Your task to perform on an android device: Clear all items from cart on newegg. Add "lg ultragear" to the cart on newegg, then select checkout. Image 0: 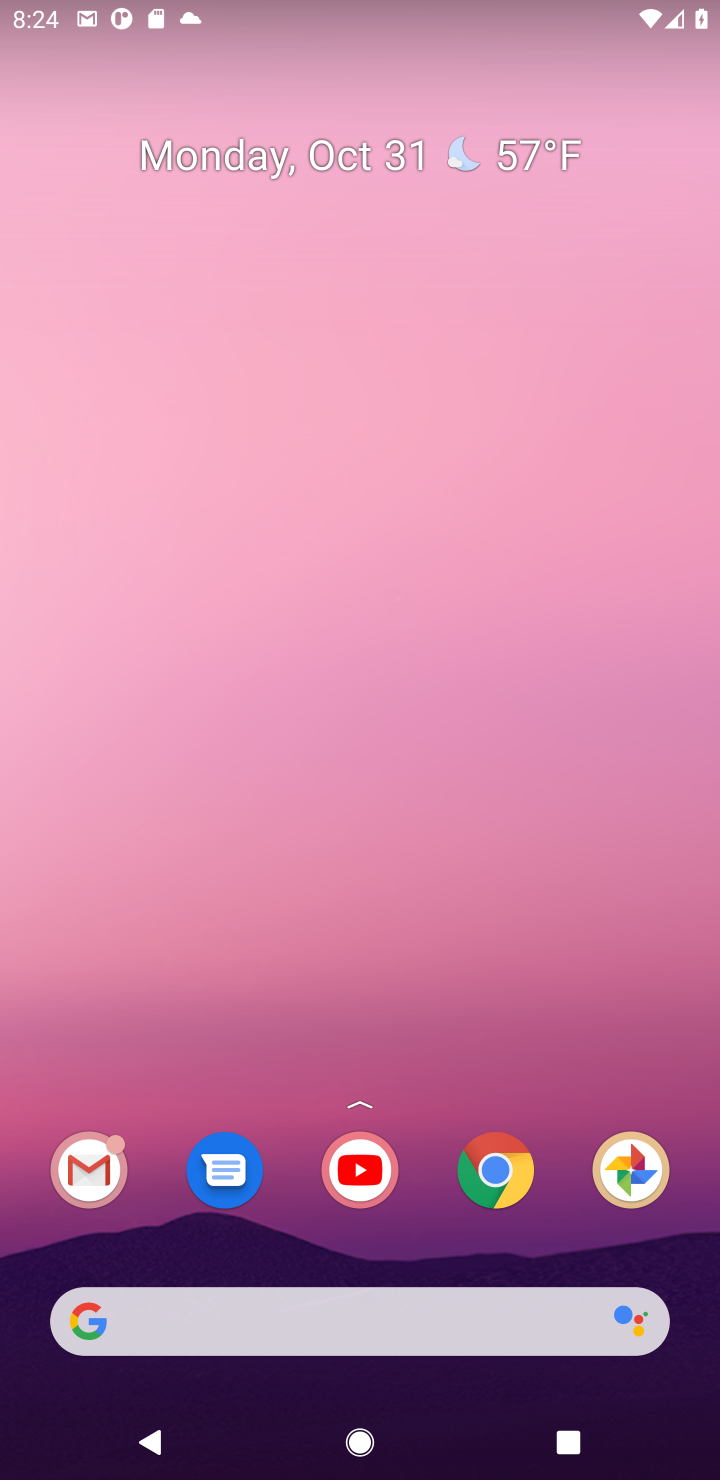
Step 0: click (507, 1180)
Your task to perform on an android device: Clear all items from cart on newegg. Add "lg ultragear" to the cart on newegg, then select checkout. Image 1: 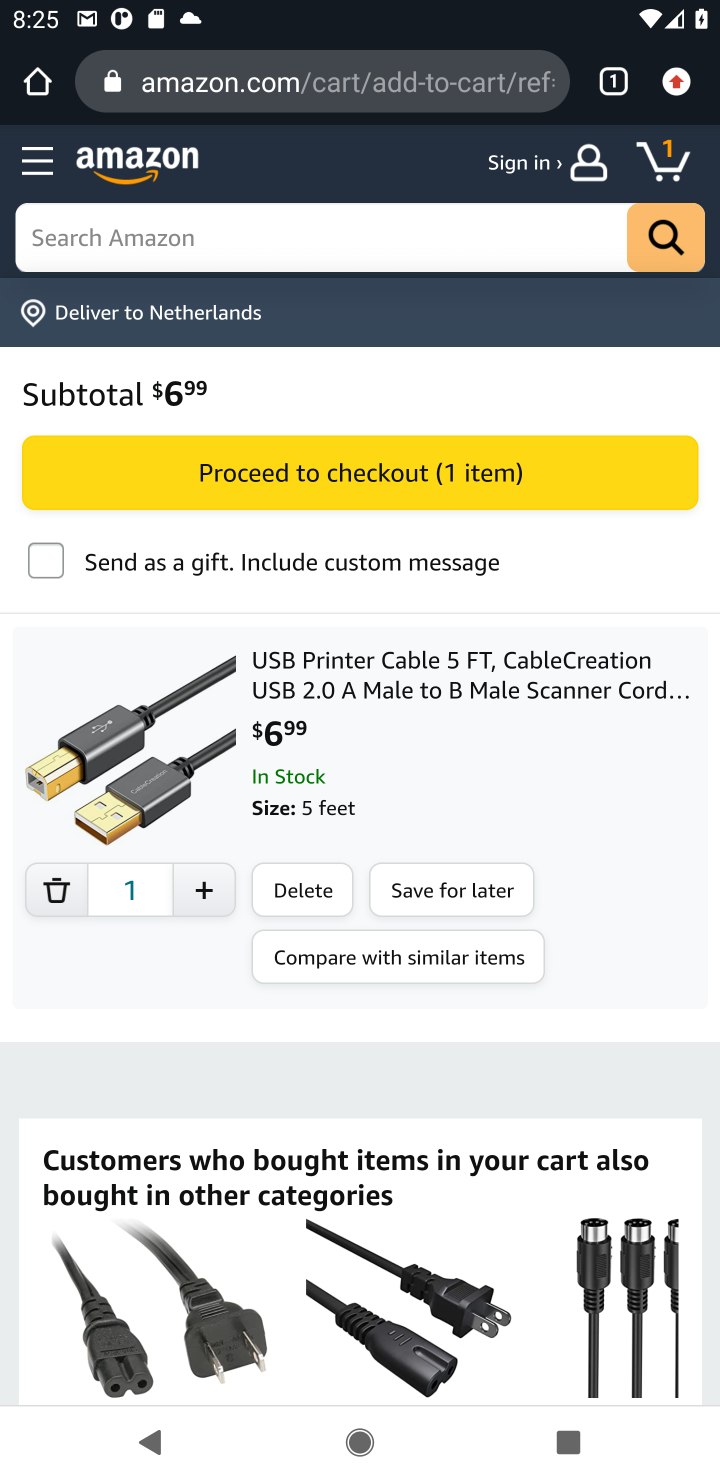
Step 1: click (388, 89)
Your task to perform on an android device: Clear all items from cart on newegg. Add "lg ultragear" to the cart on newegg, then select checkout. Image 2: 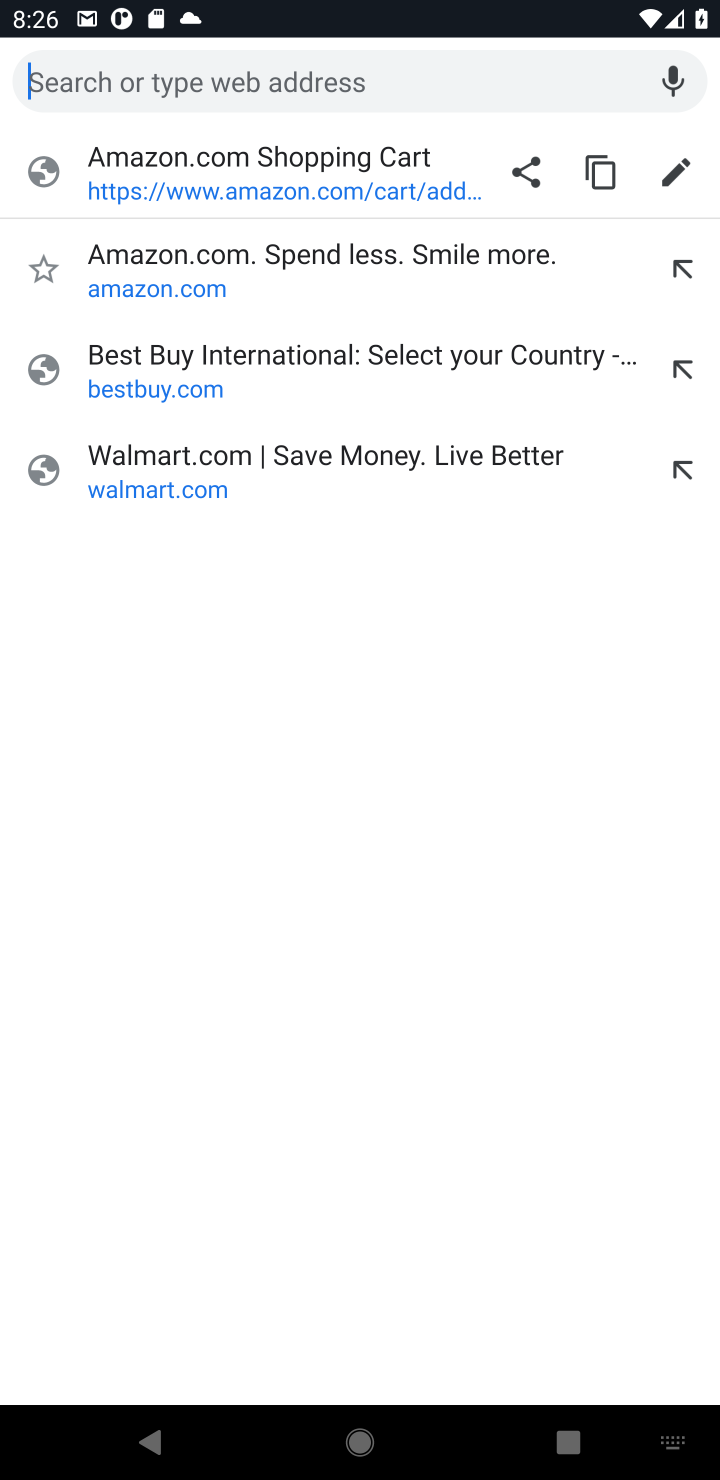
Step 2: type "newegg"
Your task to perform on an android device: Clear all items from cart on newegg. Add "lg ultragear" to the cart on newegg, then select checkout. Image 3: 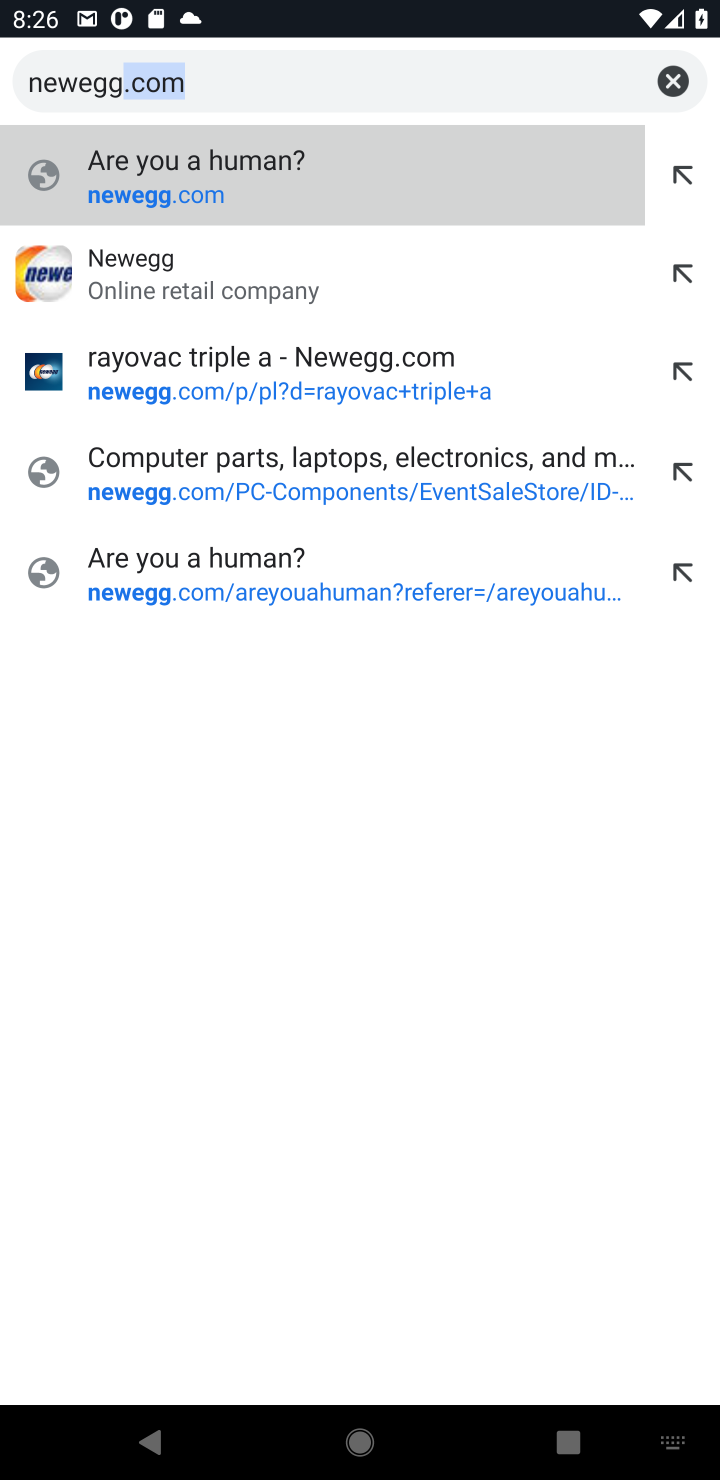
Step 3: click (327, 285)
Your task to perform on an android device: Clear all items from cart on newegg. Add "lg ultragear" to the cart on newegg, then select checkout. Image 4: 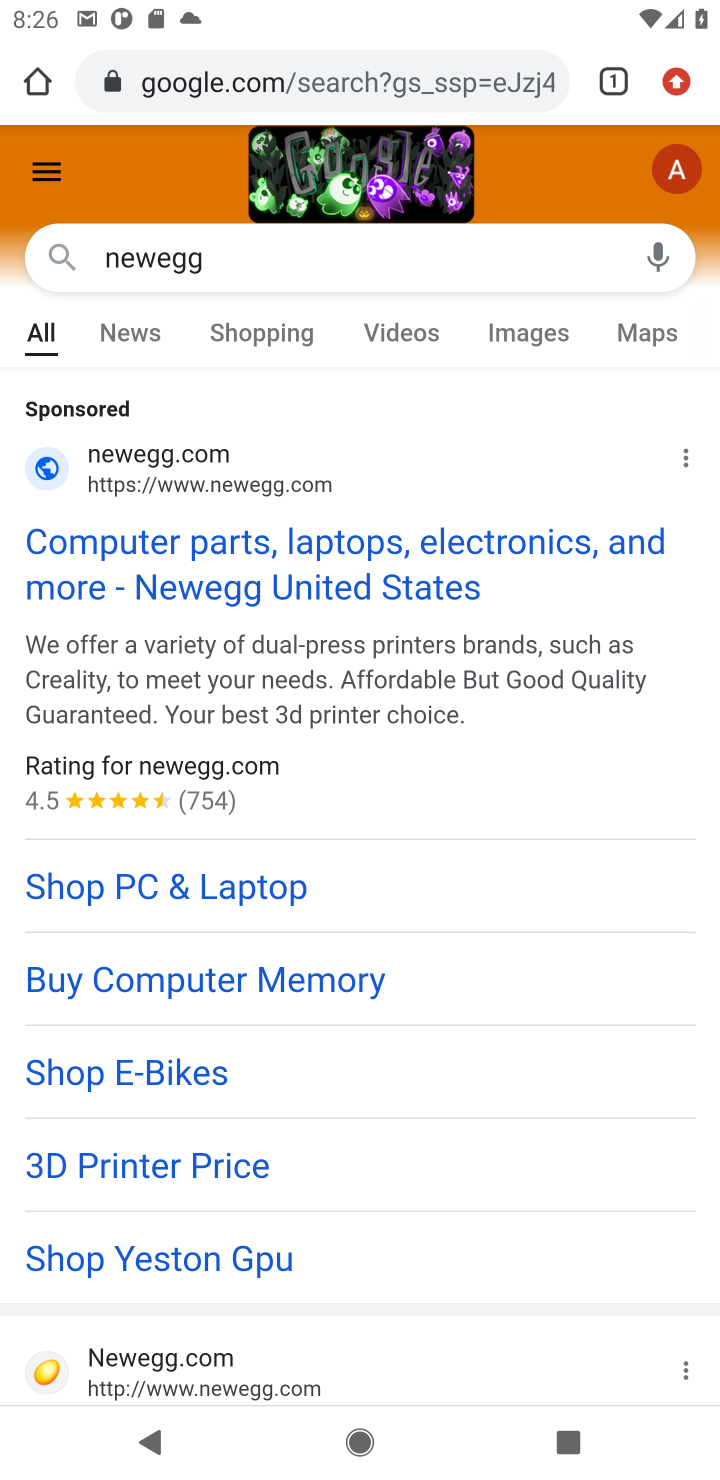
Step 4: click (327, 285)
Your task to perform on an android device: Clear all items from cart on newegg. Add "lg ultragear" to the cart on newegg, then select checkout. Image 5: 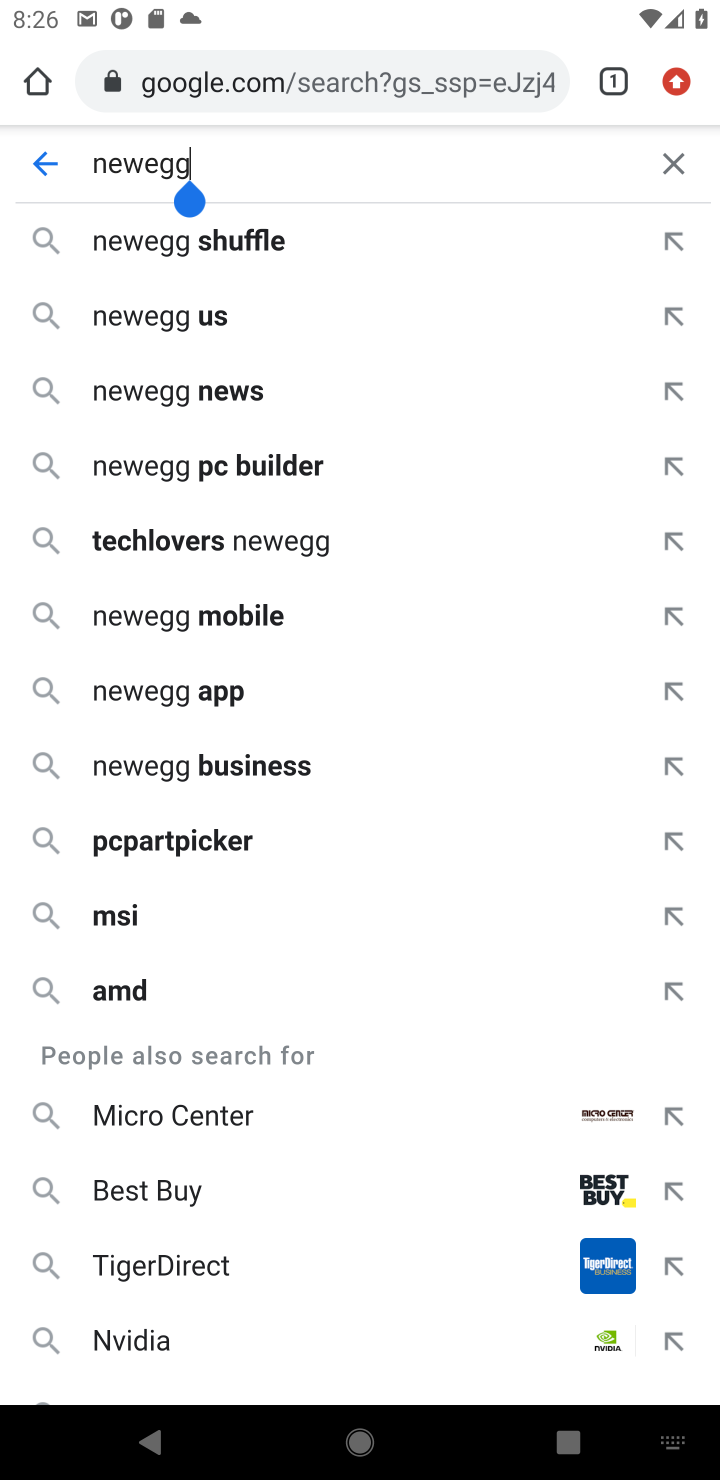
Step 5: press back button
Your task to perform on an android device: Clear all items from cart on newegg. Add "lg ultragear" to the cart on newegg, then select checkout. Image 6: 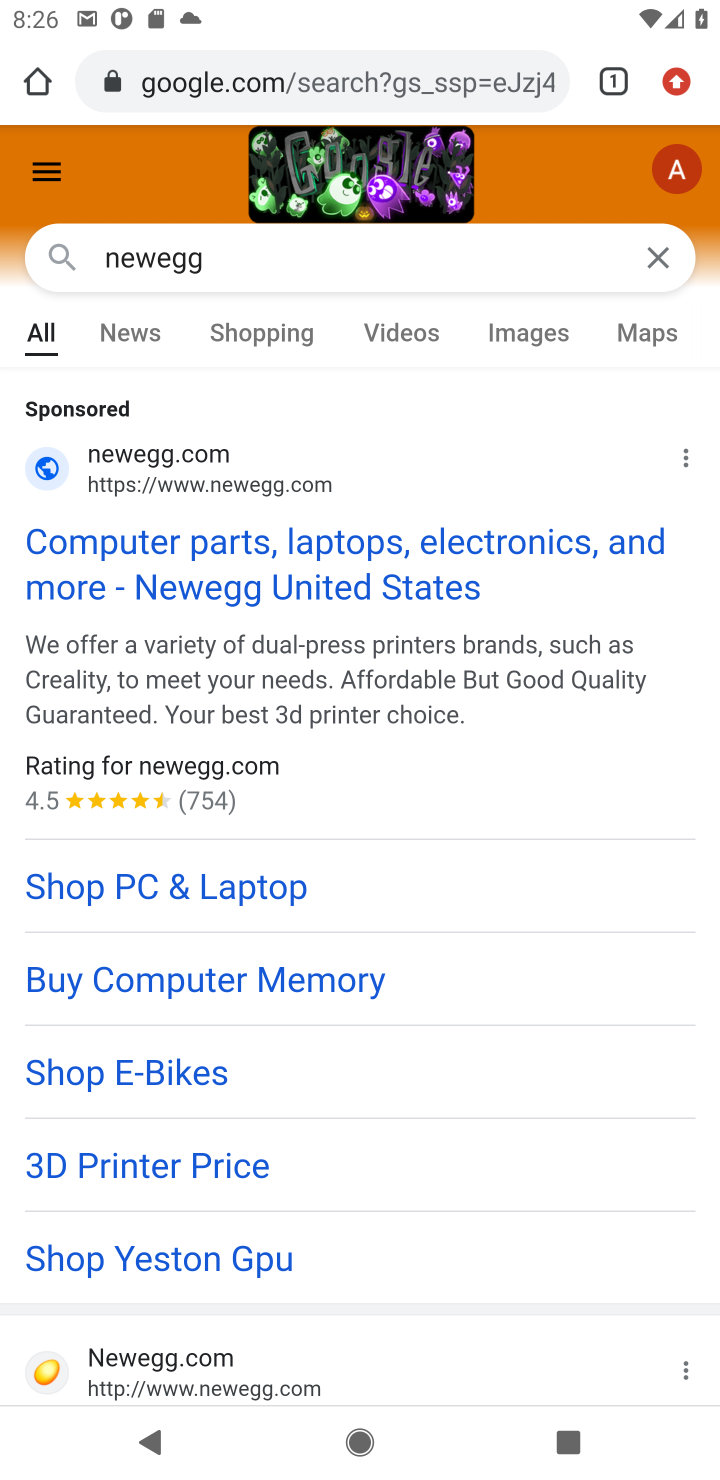
Step 6: click (343, 549)
Your task to perform on an android device: Clear all items from cart on newegg. Add "lg ultragear" to the cart on newegg, then select checkout. Image 7: 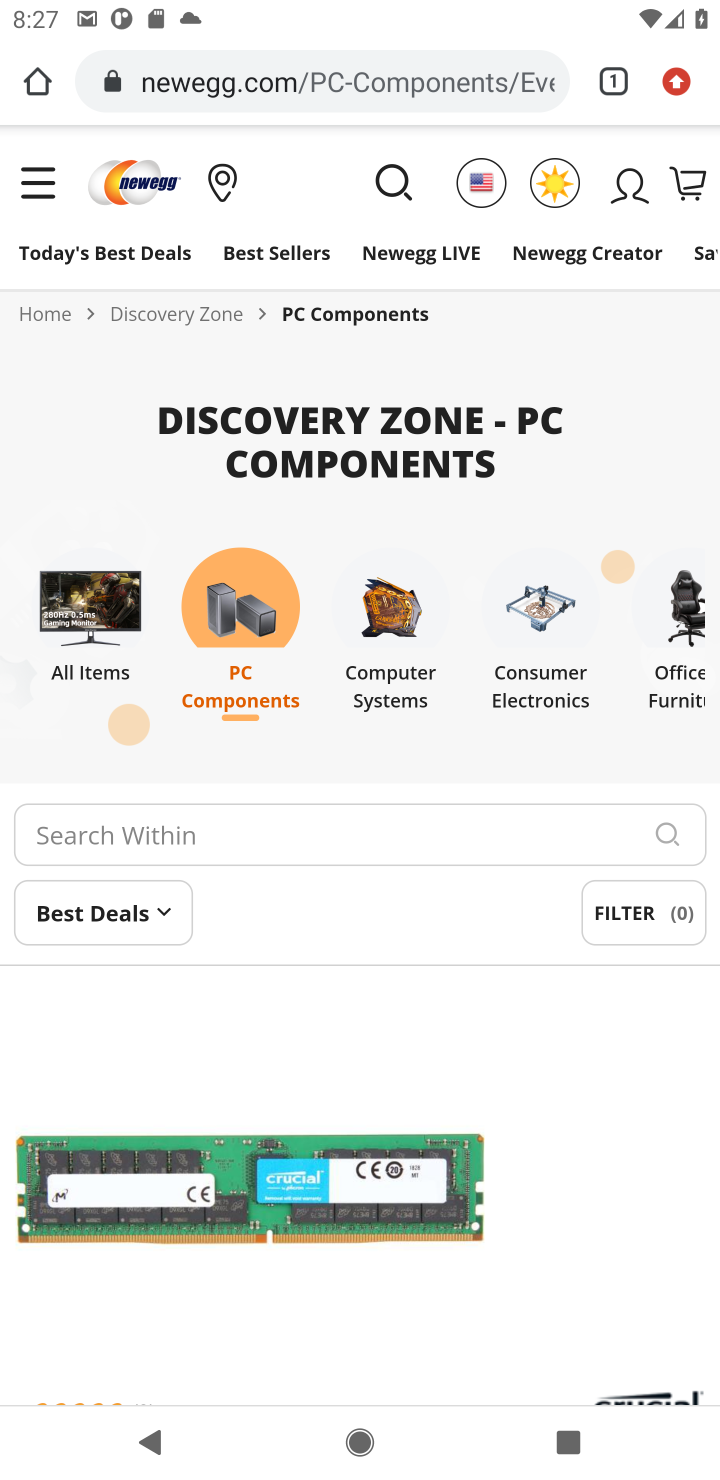
Step 7: click (694, 171)
Your task to perform on an android device: Clear all items from cart on newegg. Add "lg ultragear" to the cart on newegg, then select checkout. Image 8: 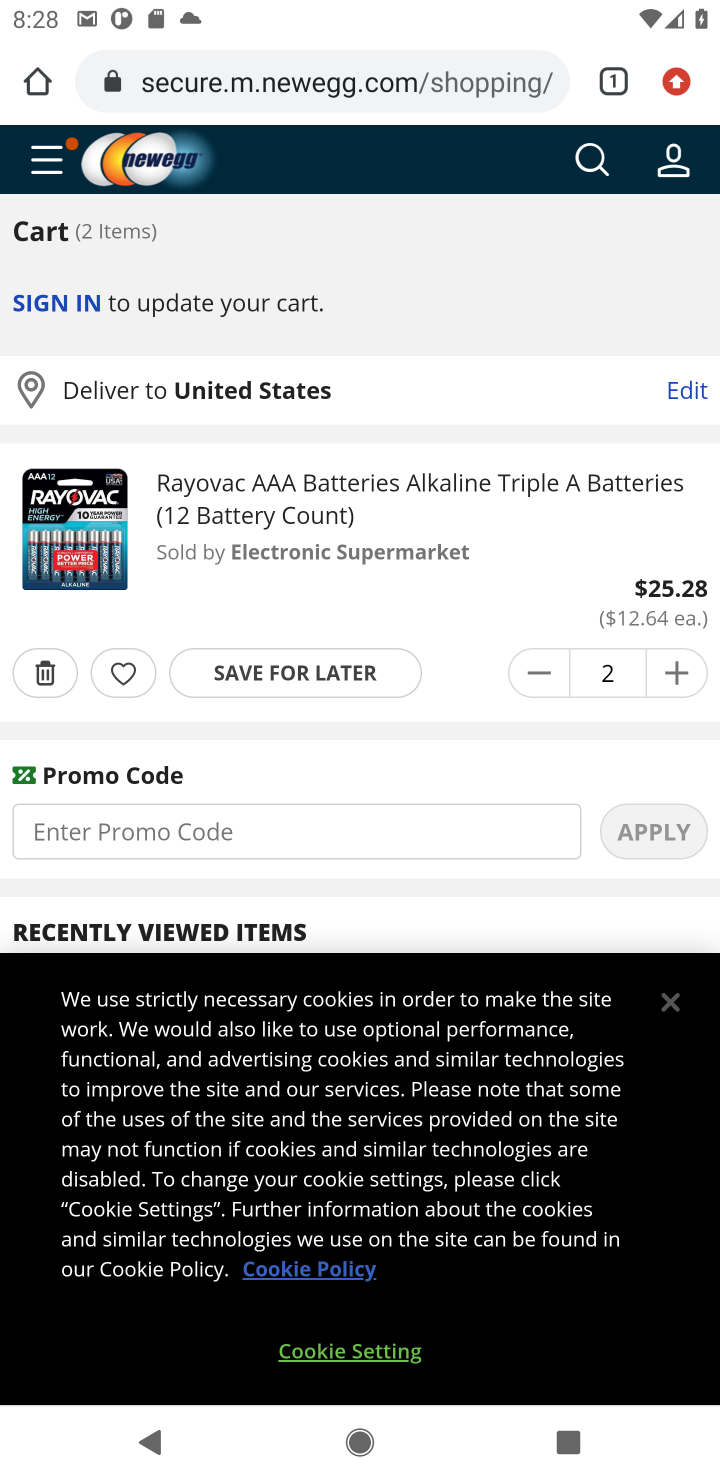
Step 8: click (42, 686)
Your task to perform on an android device: Clear all items from cart on newegg. Add "lg ultragear" to the cart on newegg, then select checkout. Image 9: 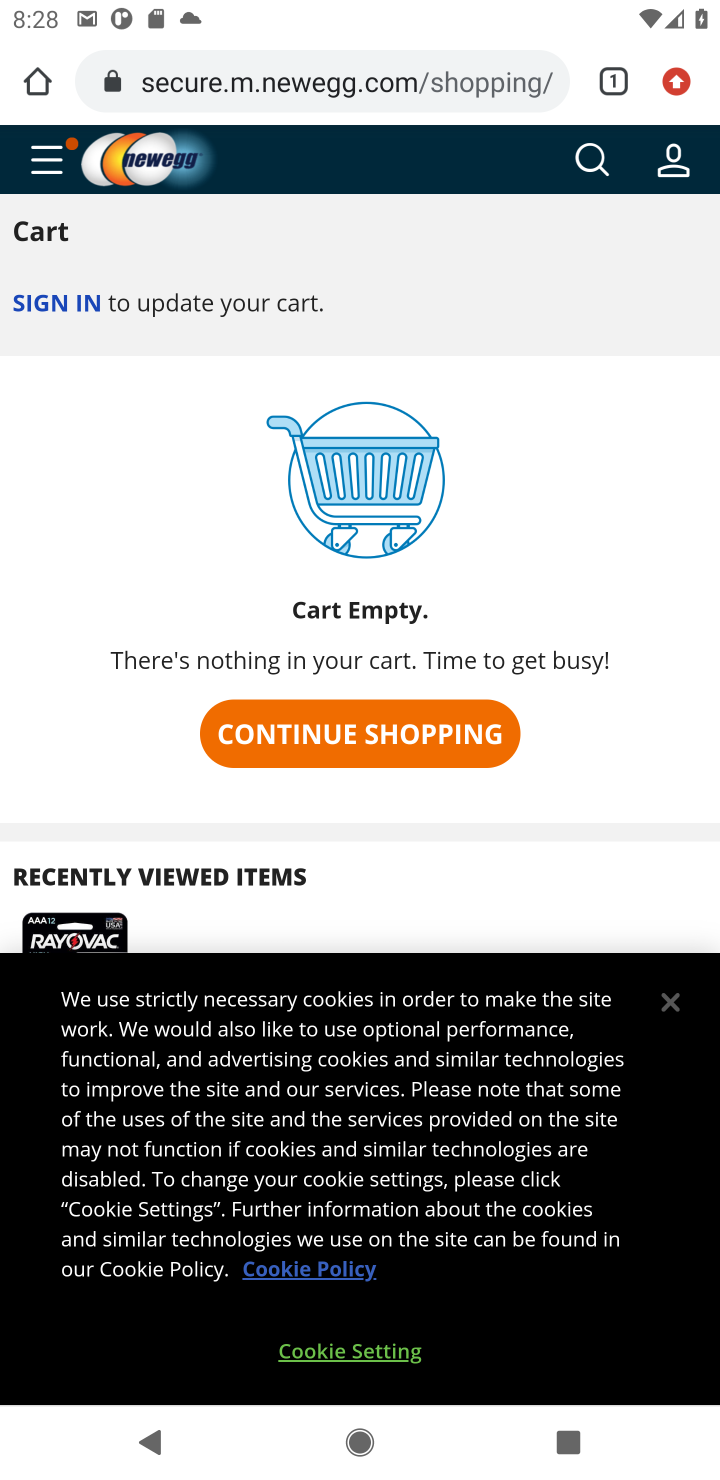
Step 9: click (601, 169)
Your task to perform on an android device: Clear all items from cart on newegg. Add "lg ultragear" to the cart on newegg, then select checkout. Image 10: 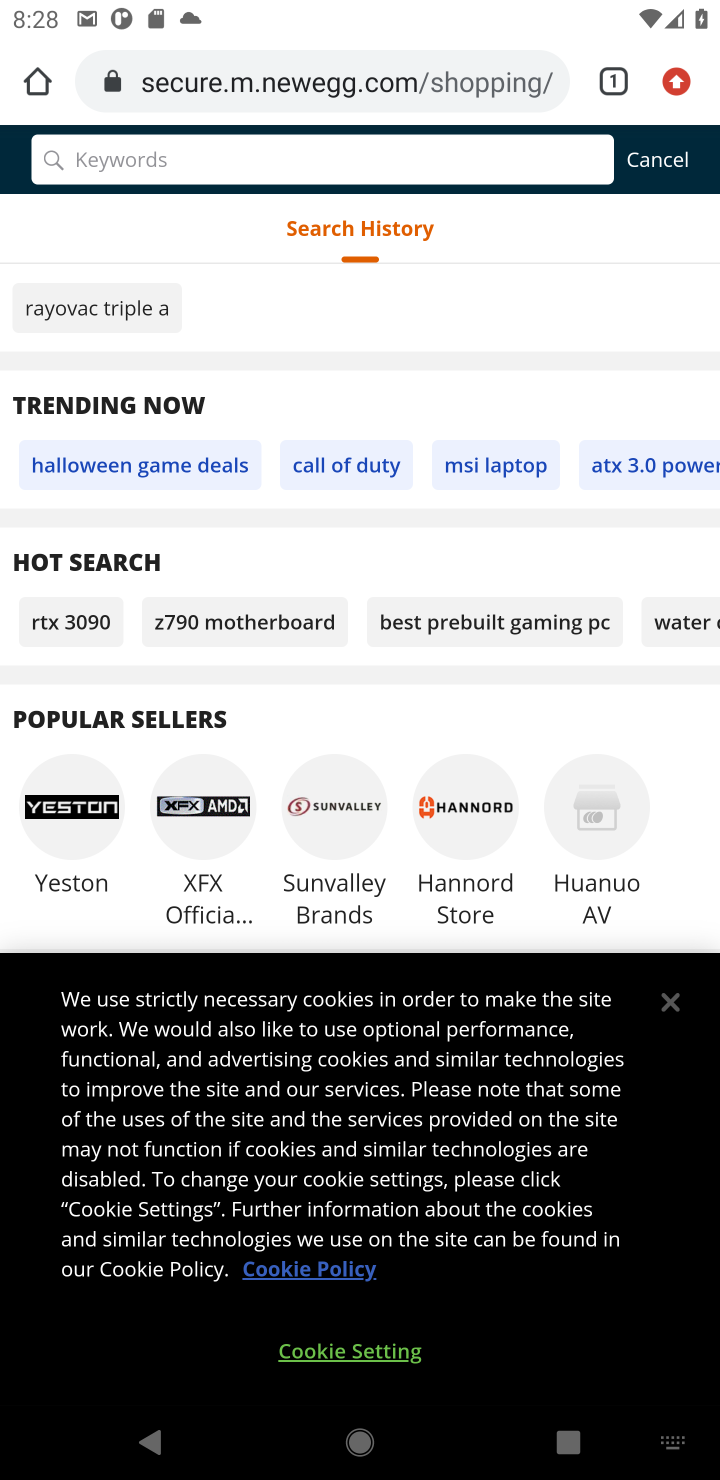
Step 10: type "lg ultragear"
Your task to perform on an android device: Clear all items from cart on newegg. Add "lg ultragear" to the cart on newegg, then select checkout. Image 11: 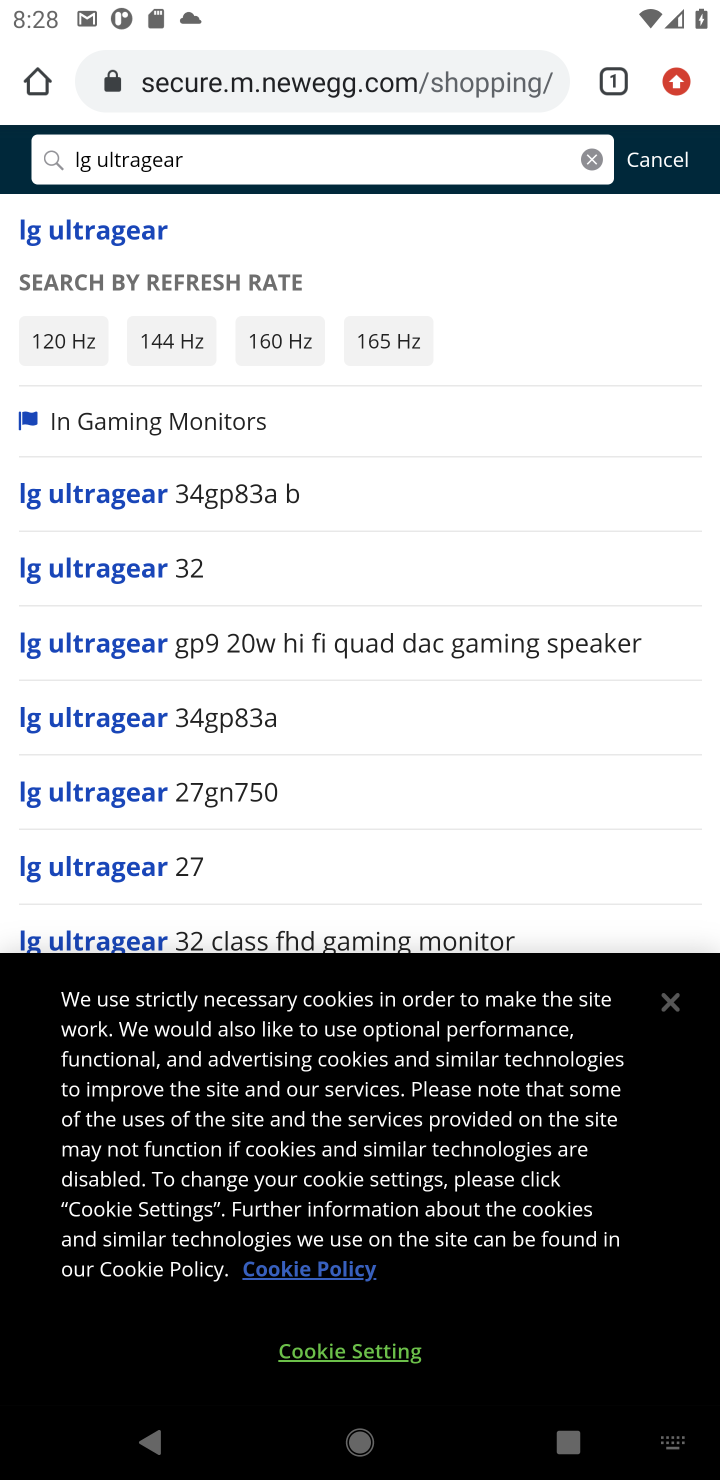
Step 11: click (134, 494)
Your task to perform on an android device: Clear all items from cart on newegg. Add "lg ultragear" to the cart on newegg, then select checkout. Image 12: 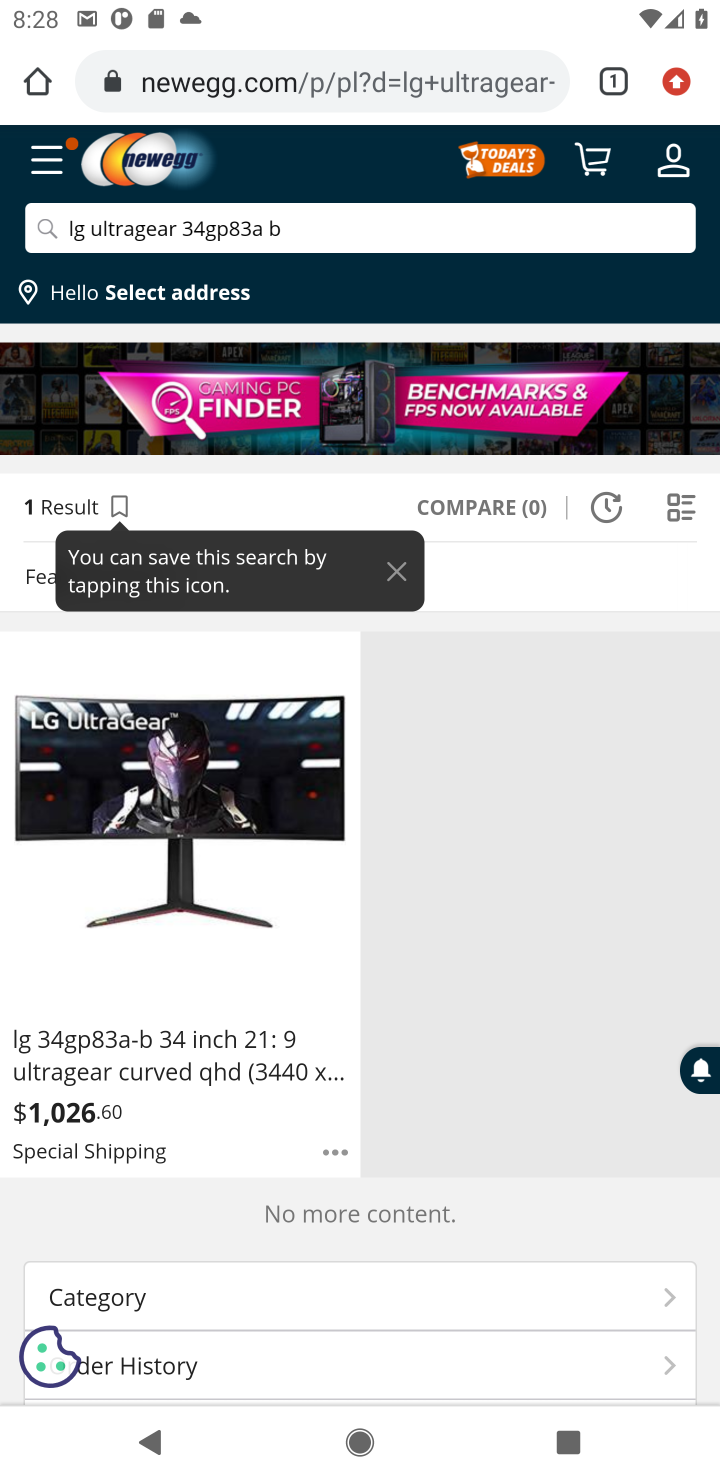
Step 12: click (228, 1023)
Your task to perform on an android device: Clear all items from cart on newegg. Add "lg ultragear" to the cart on newegg, then select checkout. Image 13: 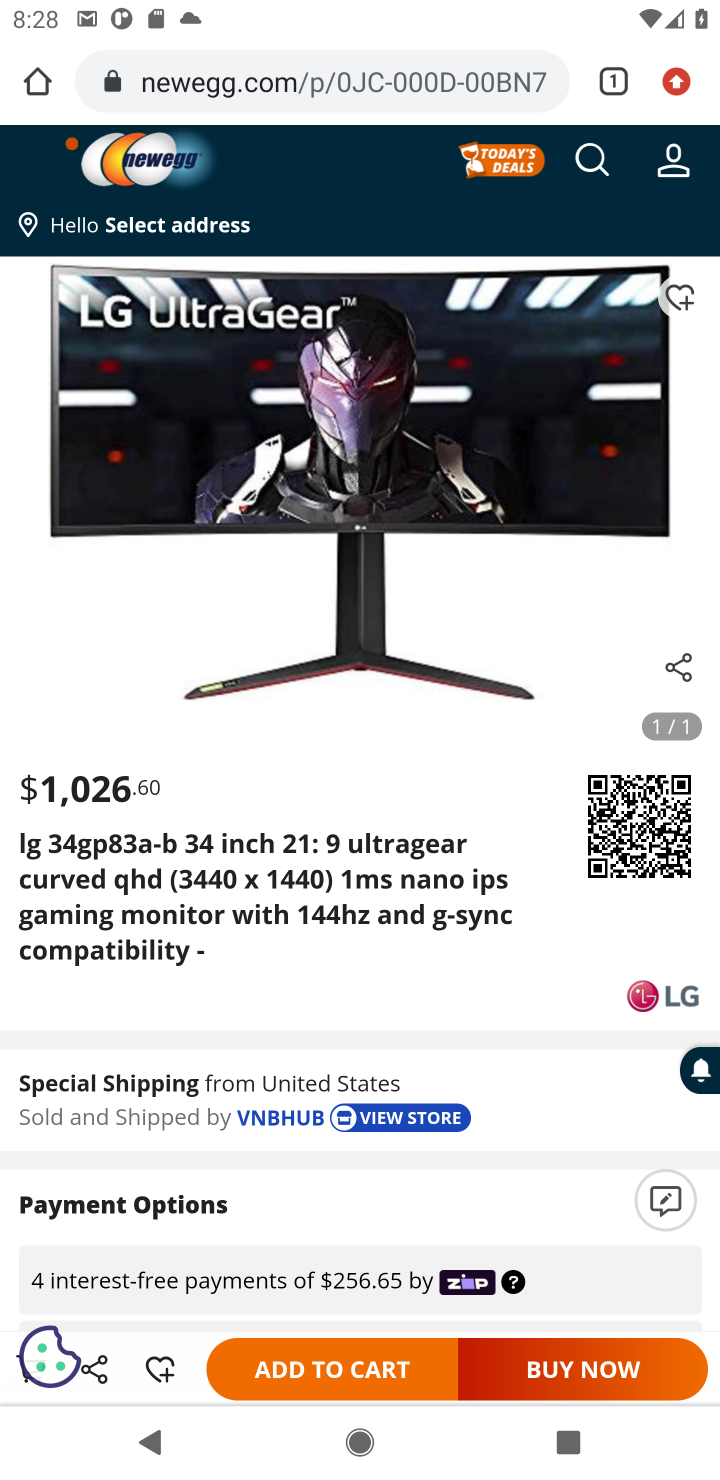
Step 13: click (377, 1346)
Your task to perform on an android device: Clear all items from cart on newegg. Add "lg ultragear" to the cart on newegg, then select checkout. Image 14: 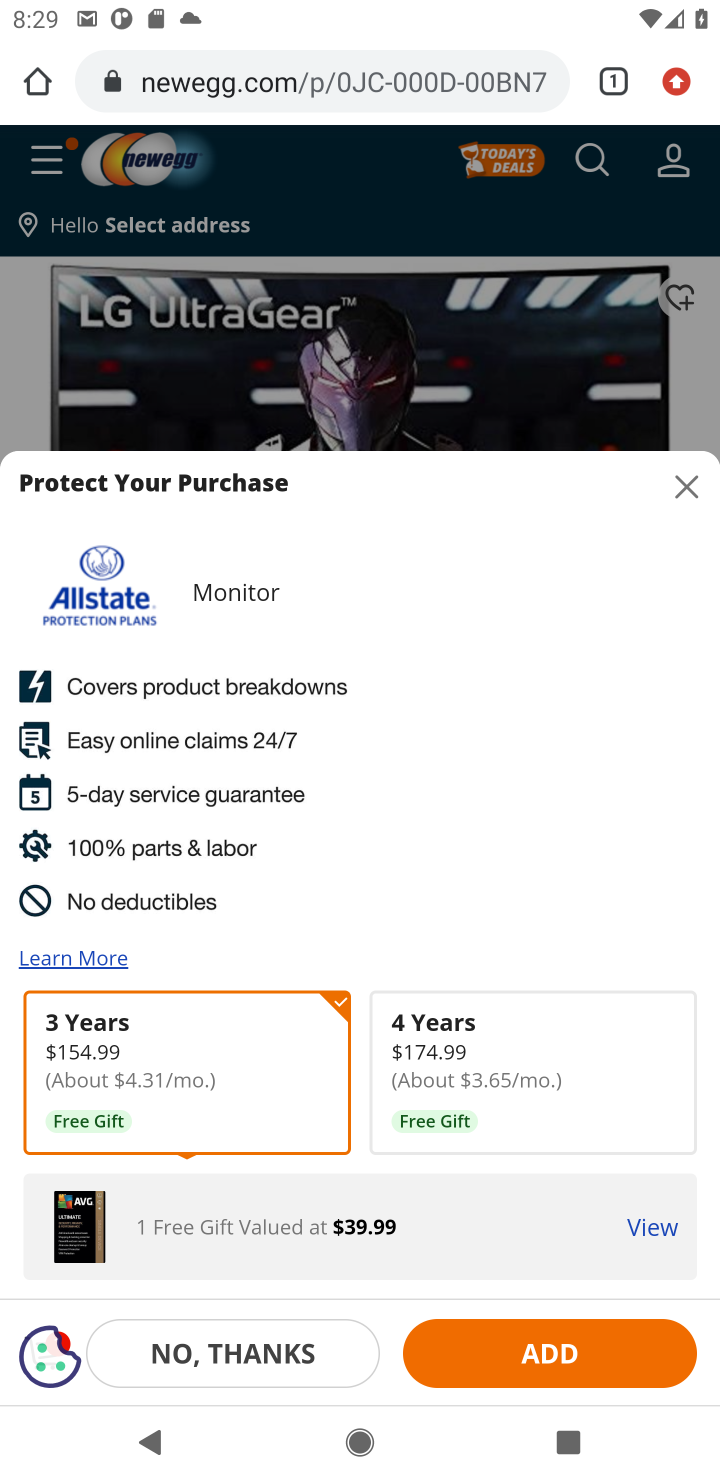
Step 14: task complete